Your task to perform on an android device: check google app version Image 0: 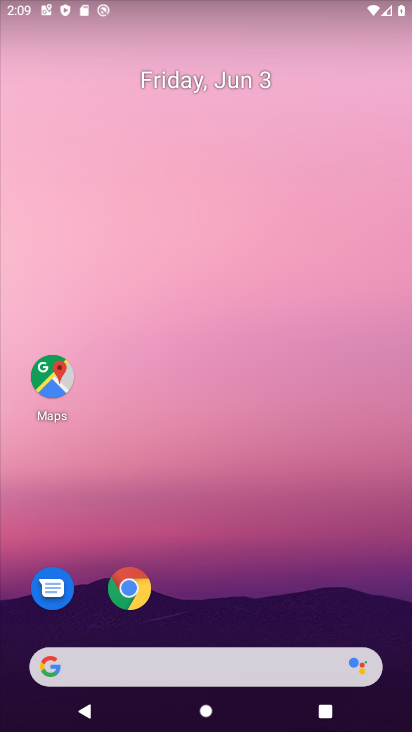
Step 0: drag from (222, 580) to (271, 130)
Your task to perform on an android device: check google app version Image 1: 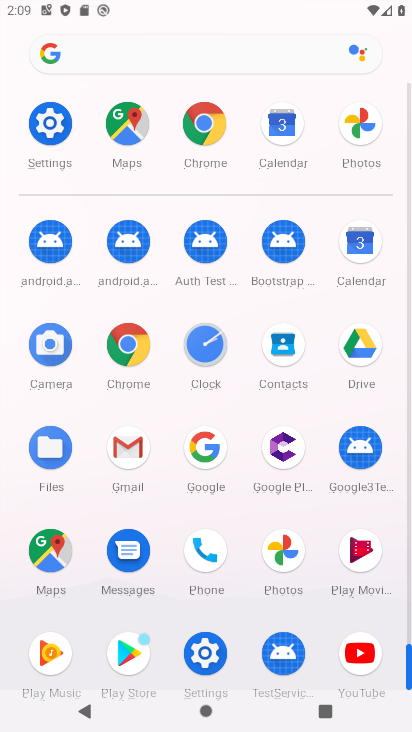
Step 1: click (211, 464)
Your task to perform on an android device: check google app version Image 2: 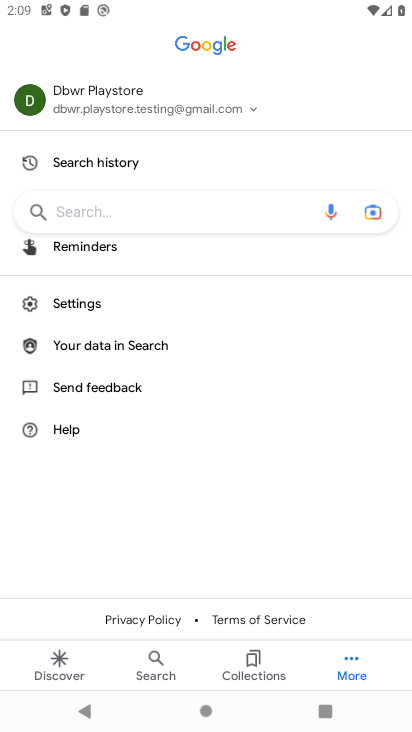
Step 2: click (78, 307)
Your task to perform on an android device: check google app version Image 3: 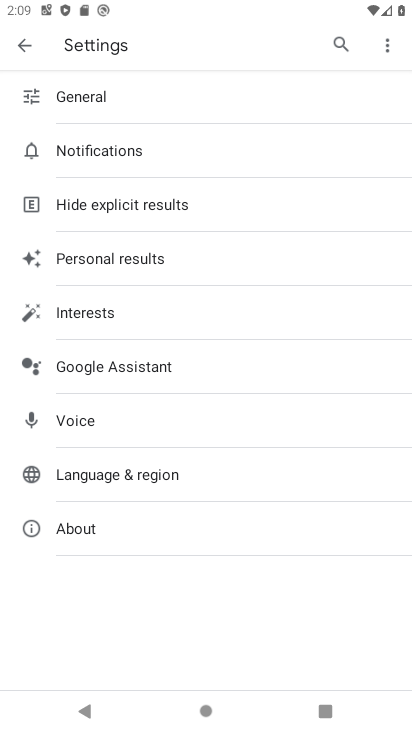
Step 3: click (119, 535)
Your task to perform on an android device: check google app version Image 4: 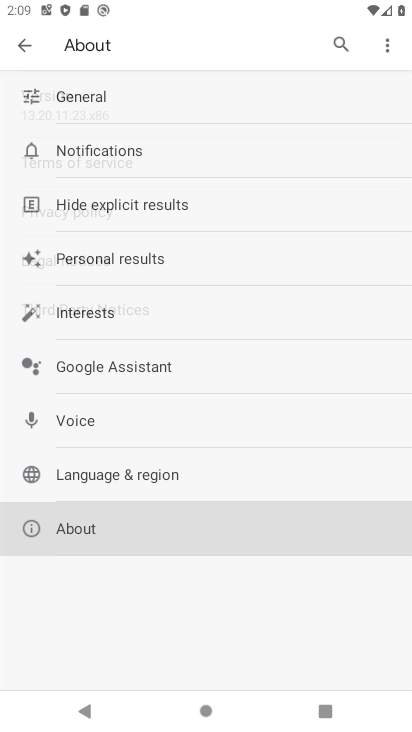
Step 4: click (237, 436)
Your task to perform on an android device: check google app version Image 5: 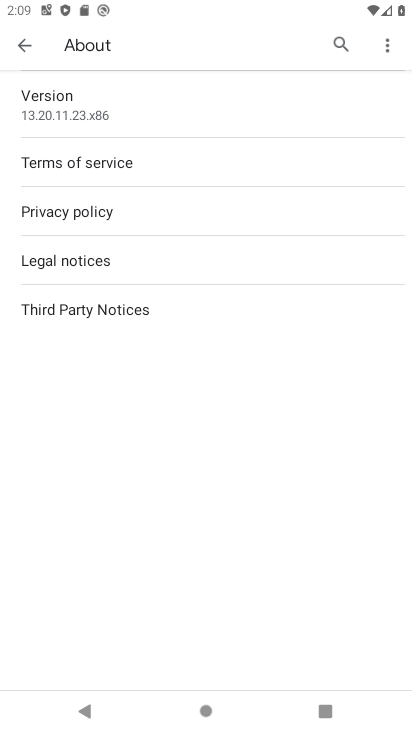
Step 5: task complete